Your task to perform on an android device: turn vacation reply on in the gmail app Image 0: 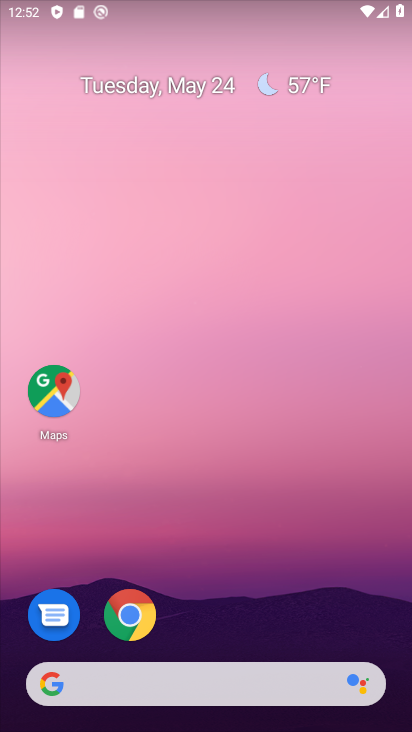
Step 0: drag from (271, 660) to (305, 110)
Your task to perform on an android device: turn vacation reply on in the gmail app Image 1: 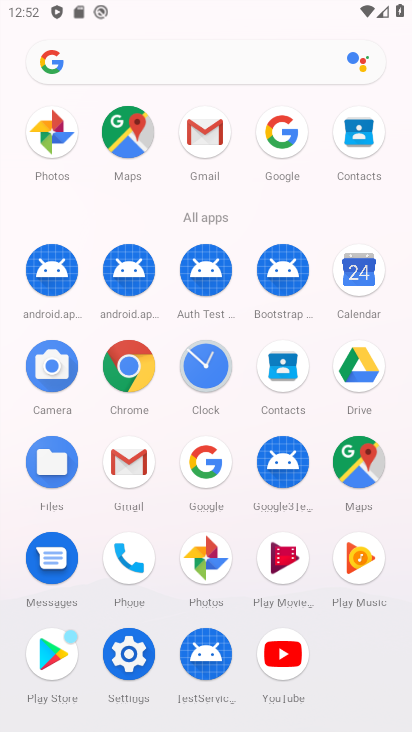
Step 1: click (206, 152)
Your task to perform on an android device: turn vacation reply on in the gmail app Image 2: 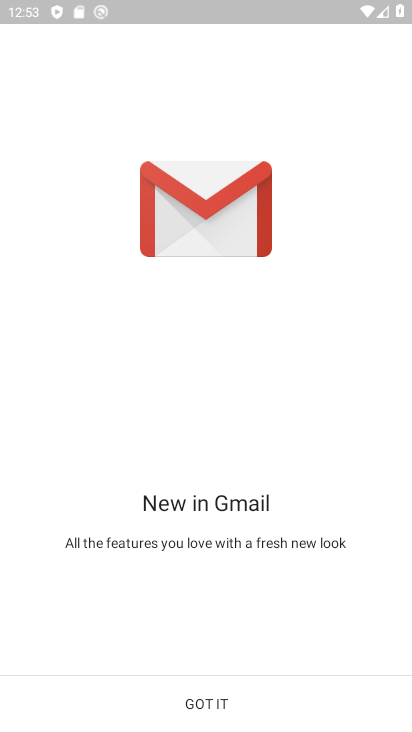
Step 2: click (192, 710)
Your task to perform on an android device: turn vacation reply on in the gmail app Image 3: 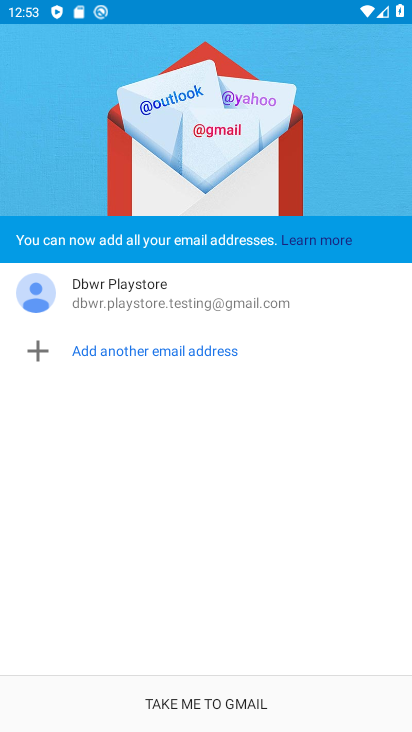
Step 3: click (192, 710)
Your task to perform on an android device: turn vacation reply on in the gmail app Image 4: 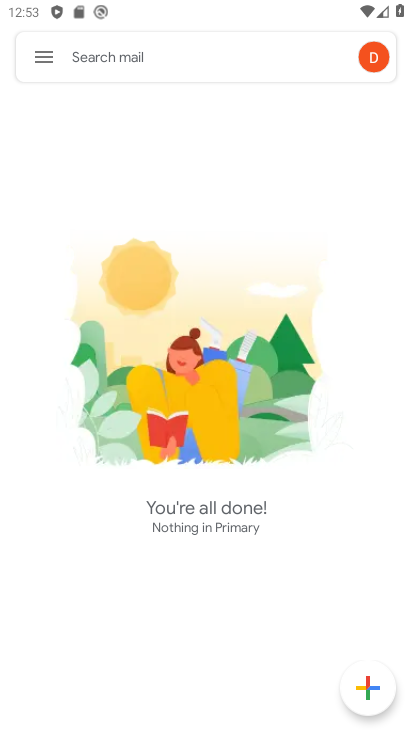
Step 4: click (49, 59)
Your task to perform on an android device: turn vacation reply on in the gmail app Image 5: 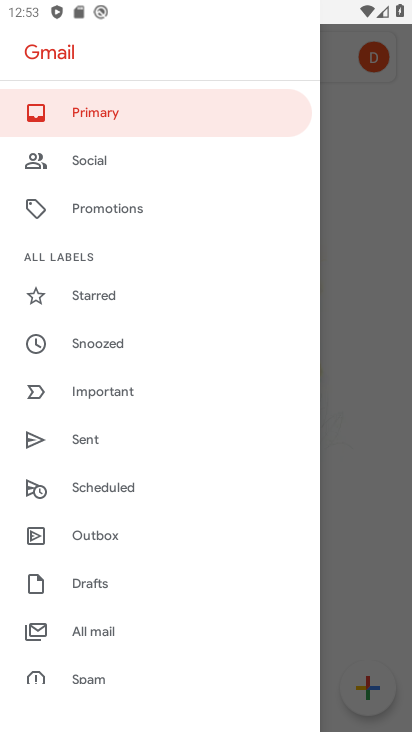
Step 5: drag from (104, 624) to (120, 206)
Your task to perform on an android device: turn vacation reply on in the gmail app Image 6: 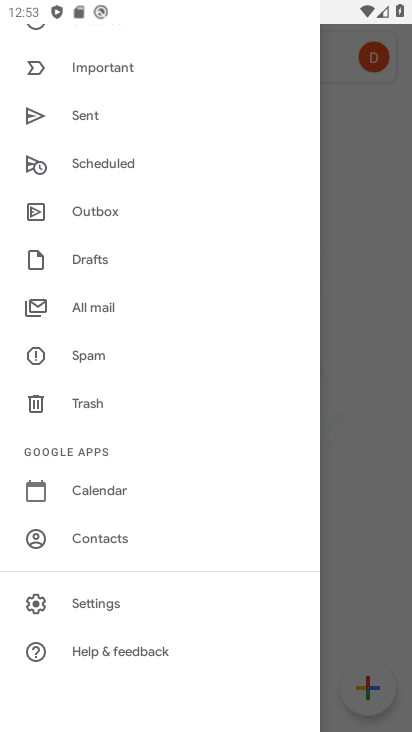
Step 6: click (100, 607)
Your task to perform on an android device: turn vacation reply on in the gmail app Image 7: 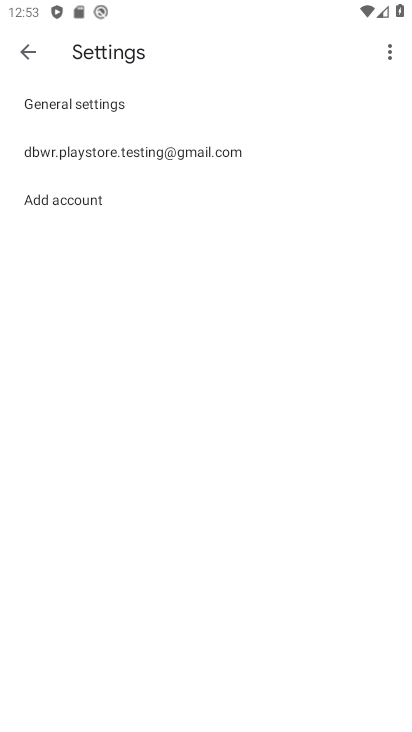
Step 7: click (147, 283)
Your task to perform on an android device: turn vacation reply on in the gmail app Image 8: 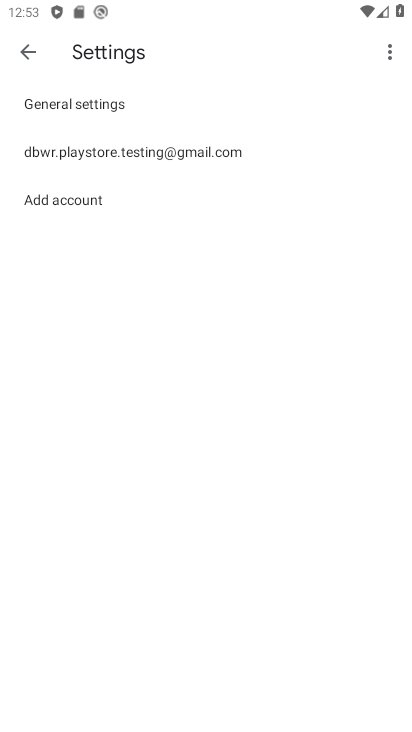
Step 8: click (169, 155)
Your task to perform on an android device: turn vacation reply on in the gmail app Image 9: 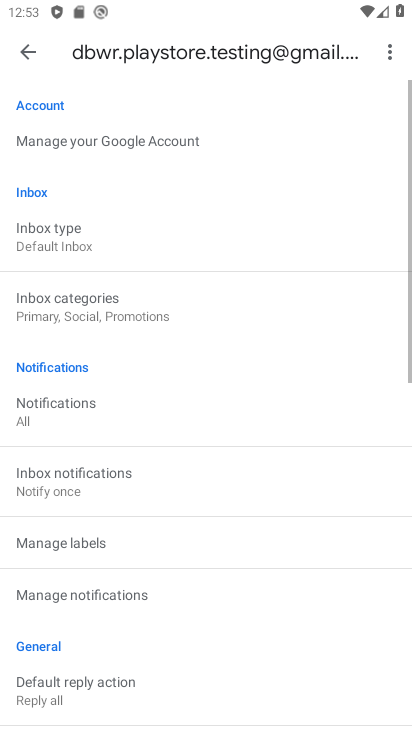
Step 9: drag from (149, 545) to (209, 179)
Your task to perform on an android device: turn vacation reply on in the gmail app Image 10: 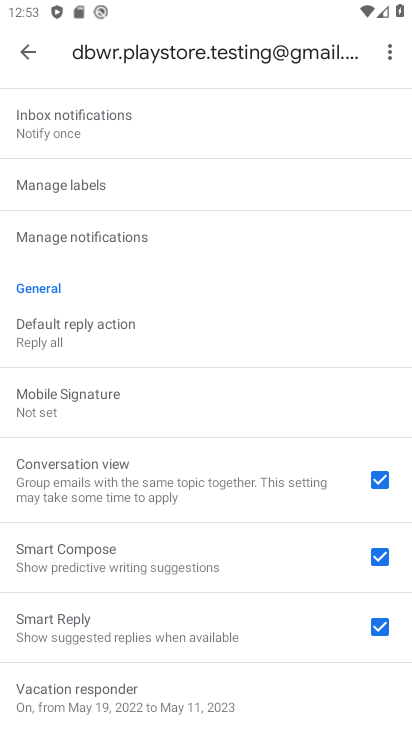
Step 10: click (107, 700)
Your task to perform on an android device: turn vacation reply on in the gmail app Image 11: 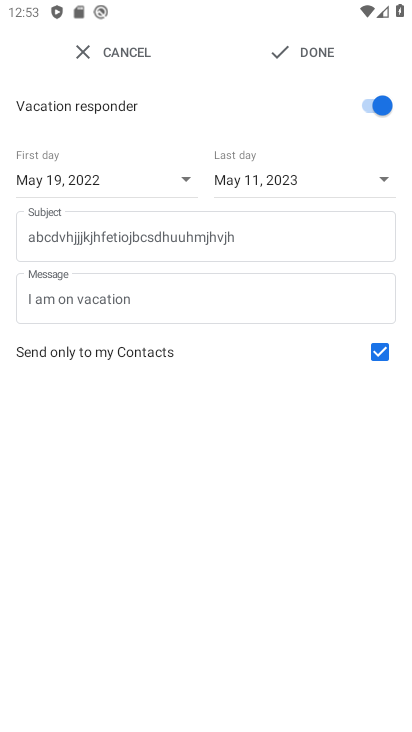
Step 11: click (318, 50)
Your task to perform on an android device: turn vacation reply on in the gmail app Image 12: 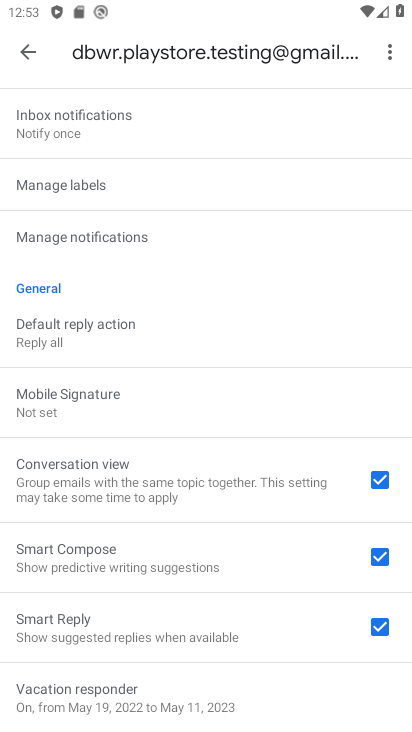
Step 12: task complete